Your task to perform on an android device: Open Reddit.com Image 0: 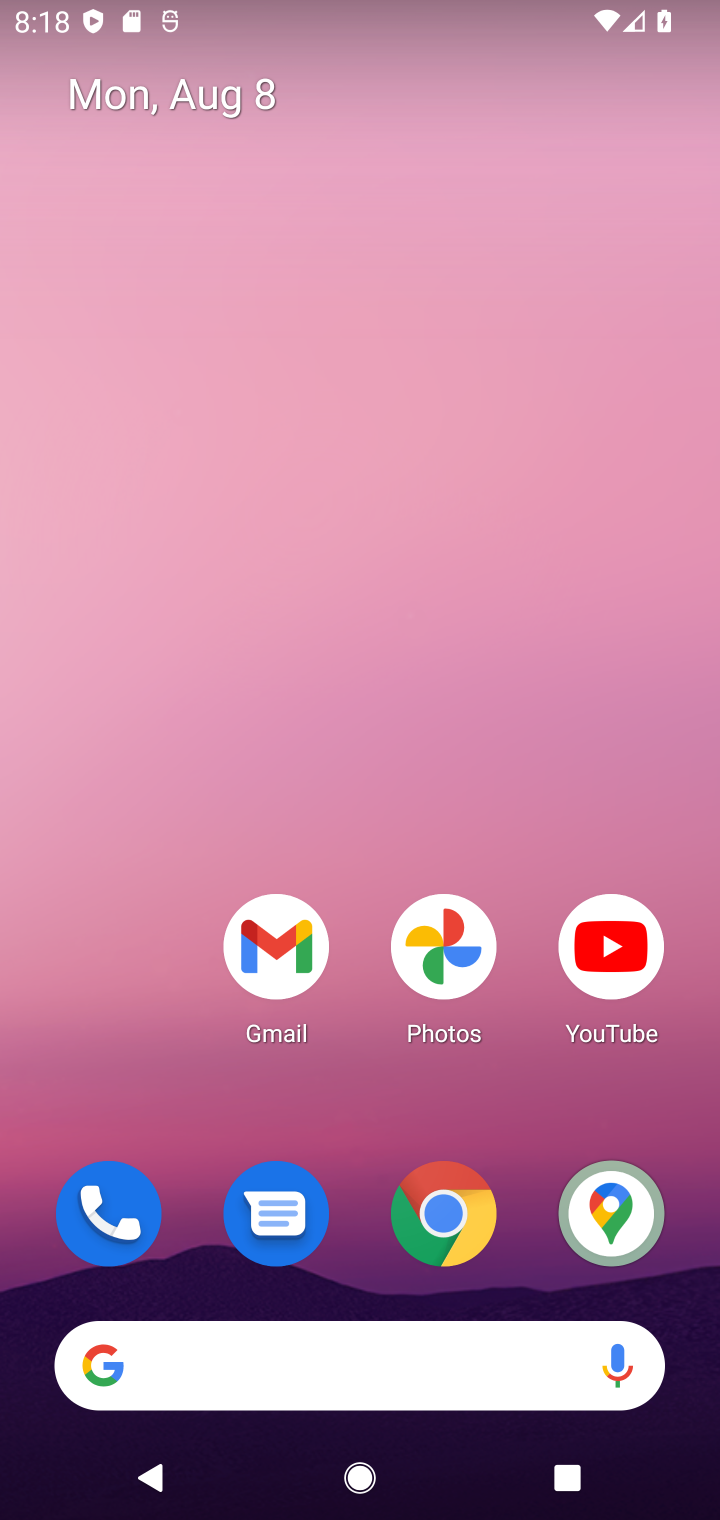
Step 0: click (431, 1190)
Your task to perform on an android device: Open Reddit.com Image 1: 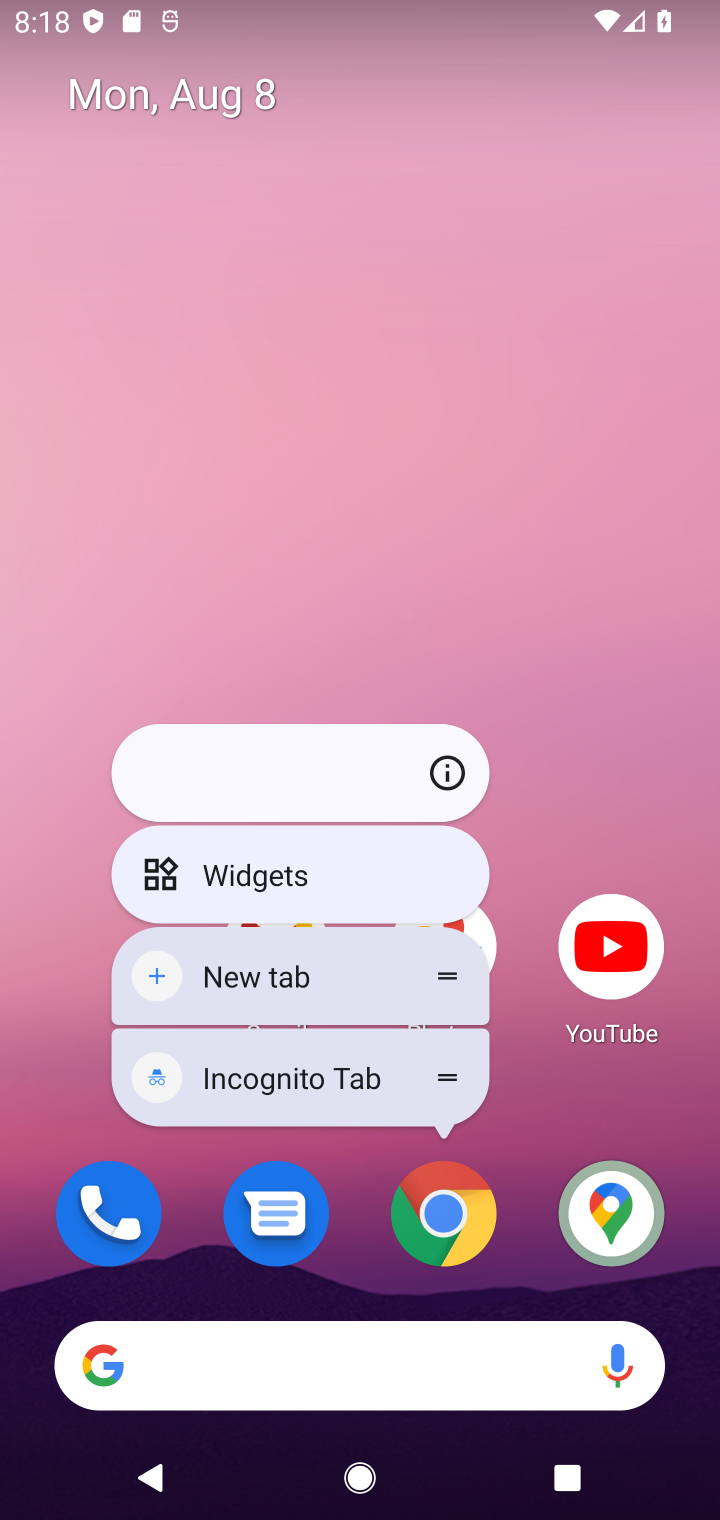
Step 1: click (453, 1221)
Your task to perform on an android device: Open Reddit.com Image 2: 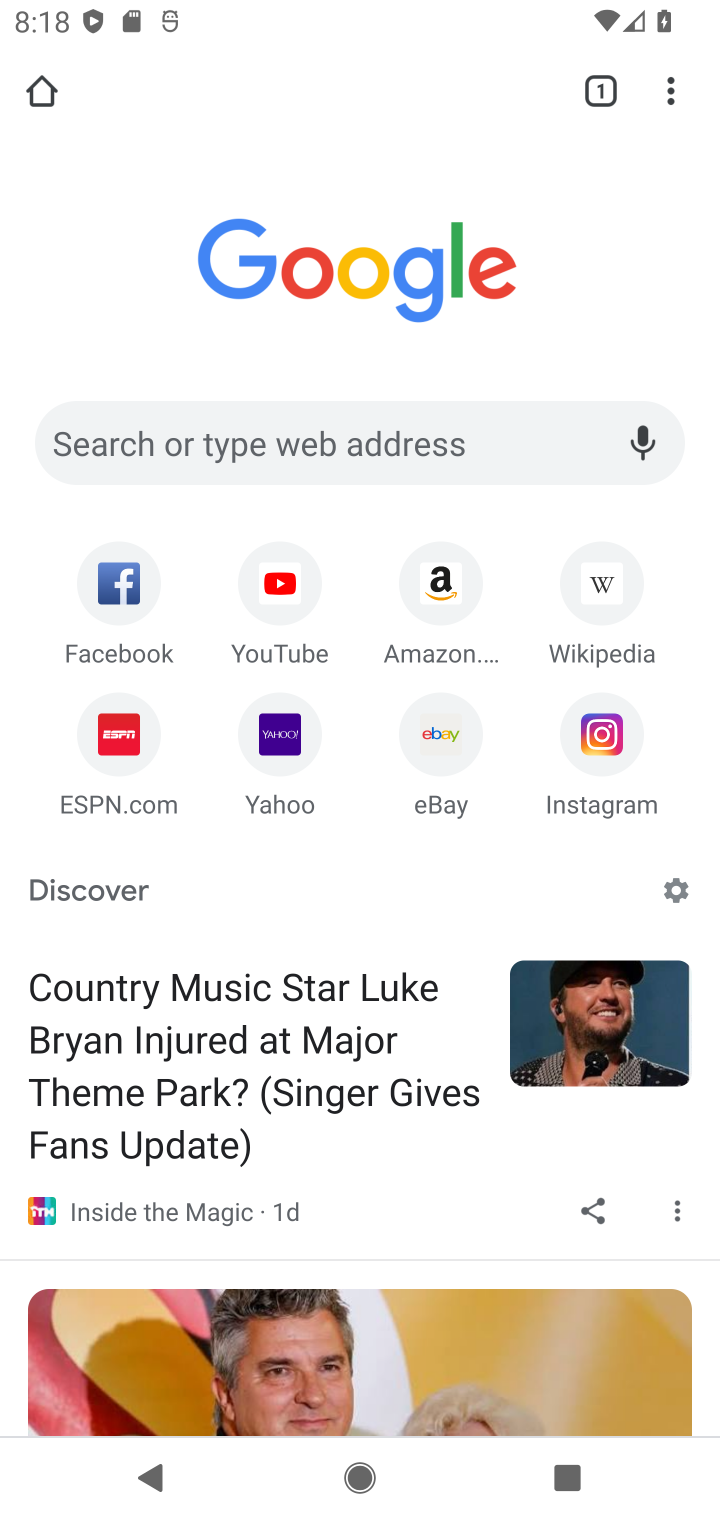
Step 2: click (323, 440)
Your task to perform on an android device: Open Reddit.com Image 3: 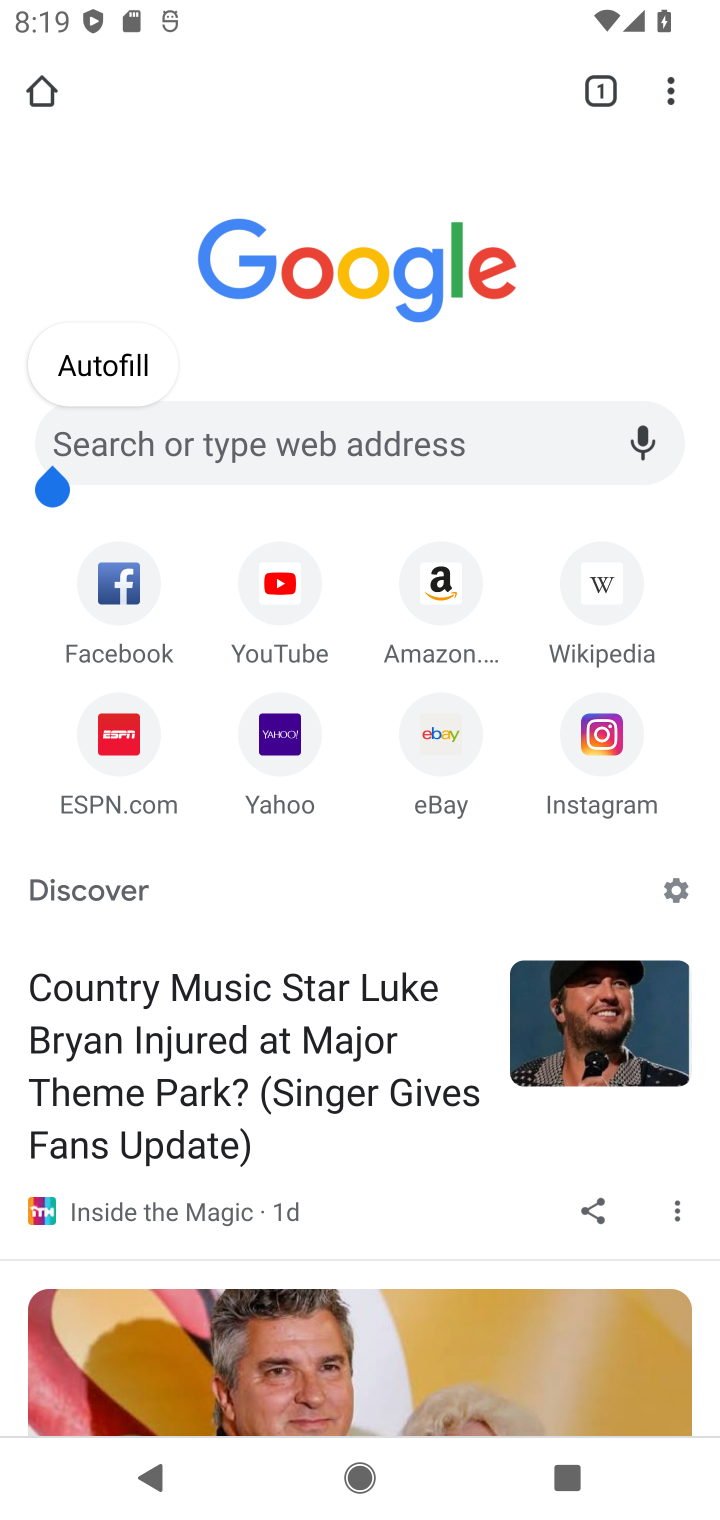
Step 3: type "Reddit.com"
Your task to perform on an android device: Open Reddit.com Image 4: 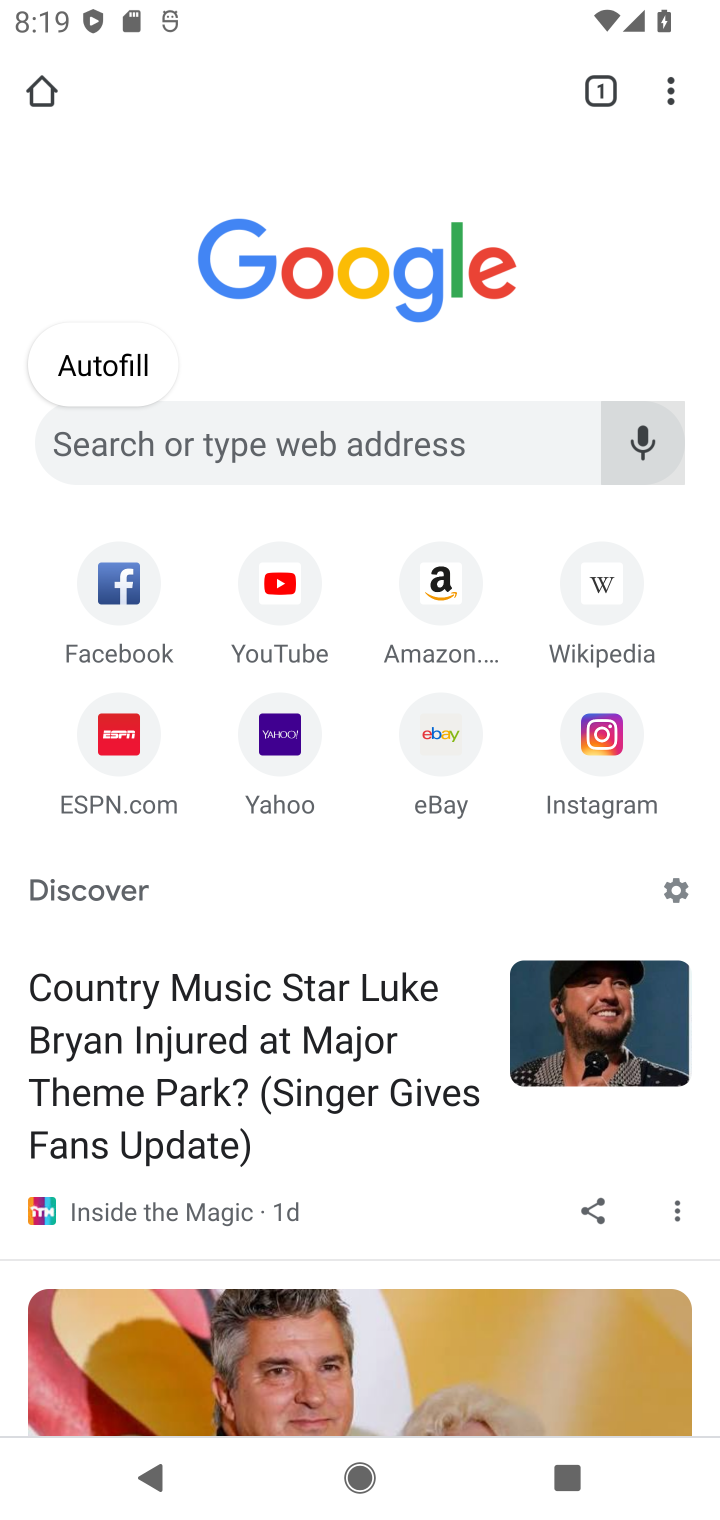
Step 4: type ""
Your task to perform on an android device: Open Reddit.com Image 5: 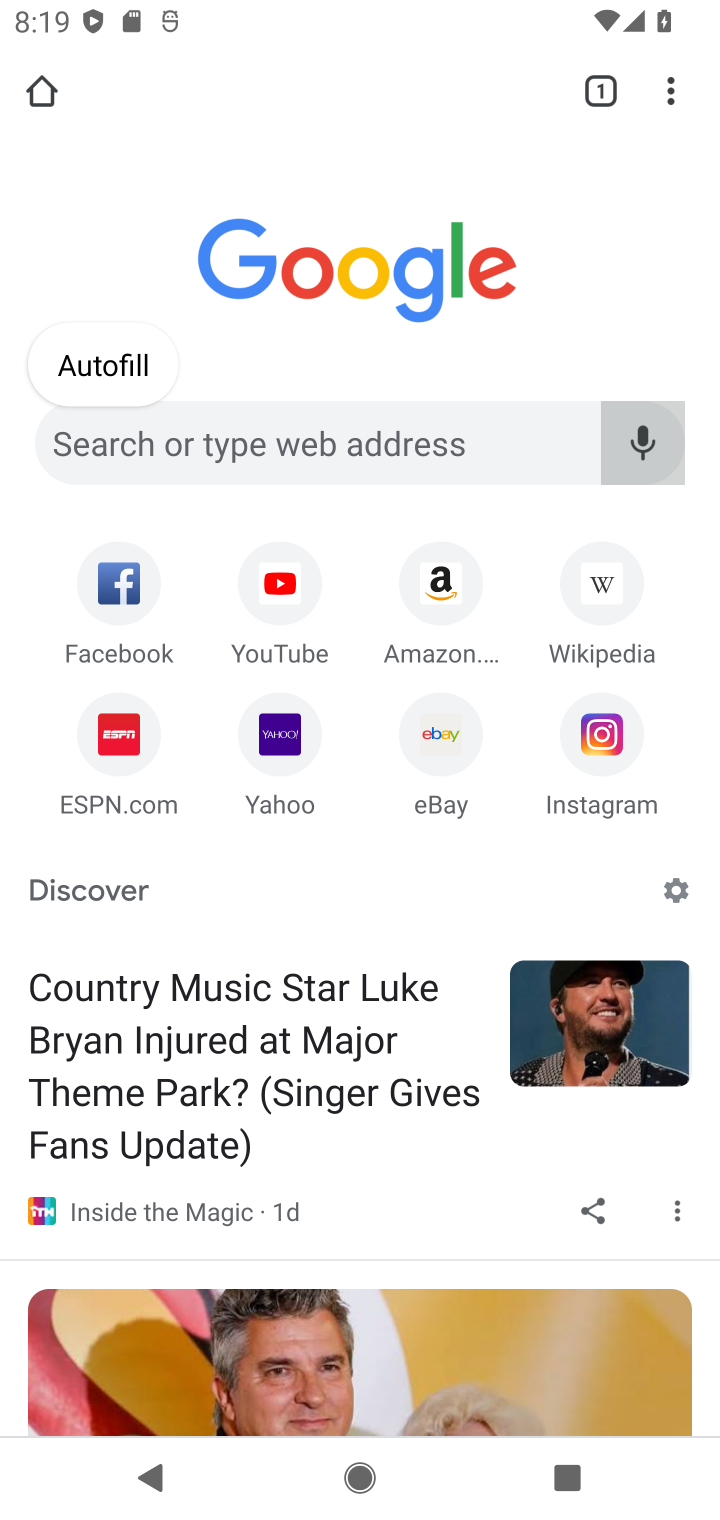
Step 5: click (278, 453)
Your task to perform on an android device: Open Reddit.com Image 6: 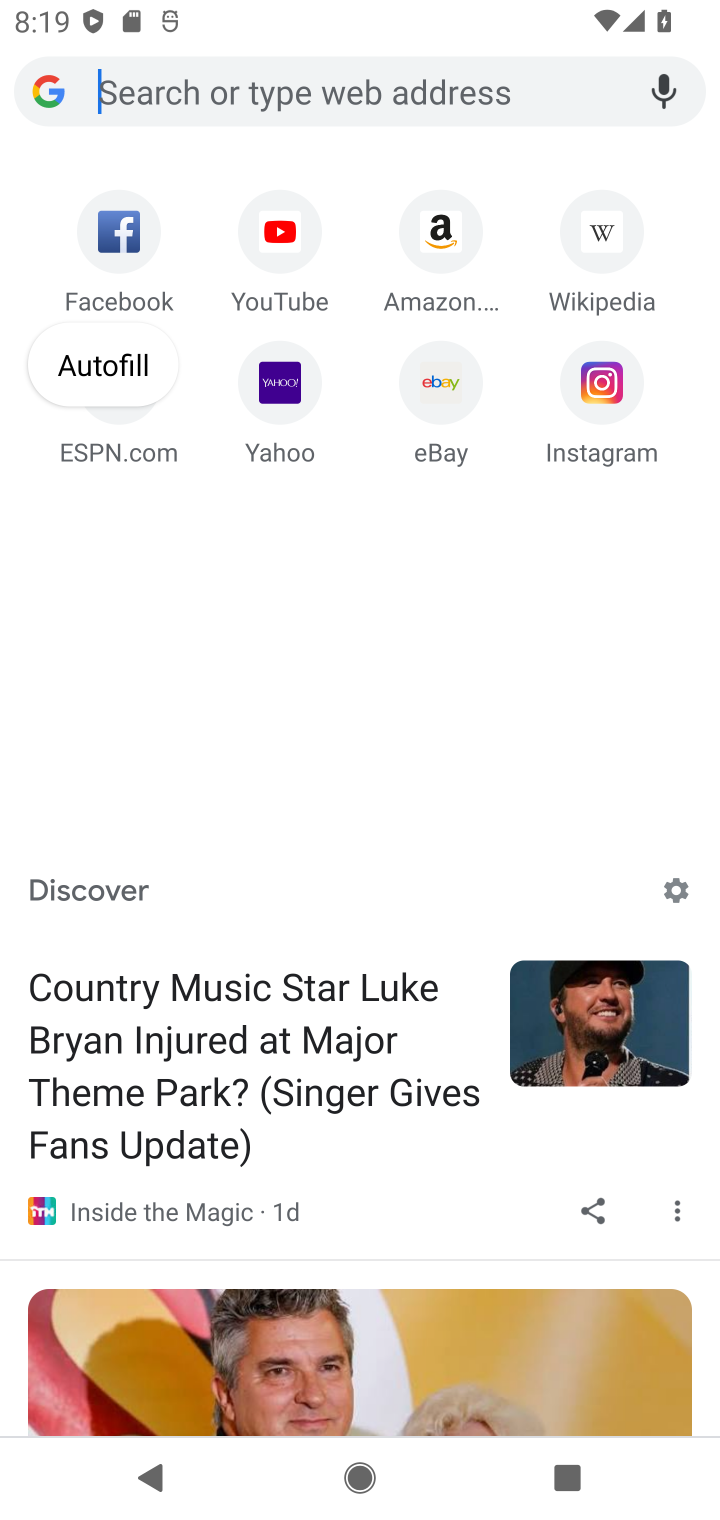
Step 6: click (278, 450)
Your task to perform on an android device: Open Reddit.com Image 7: 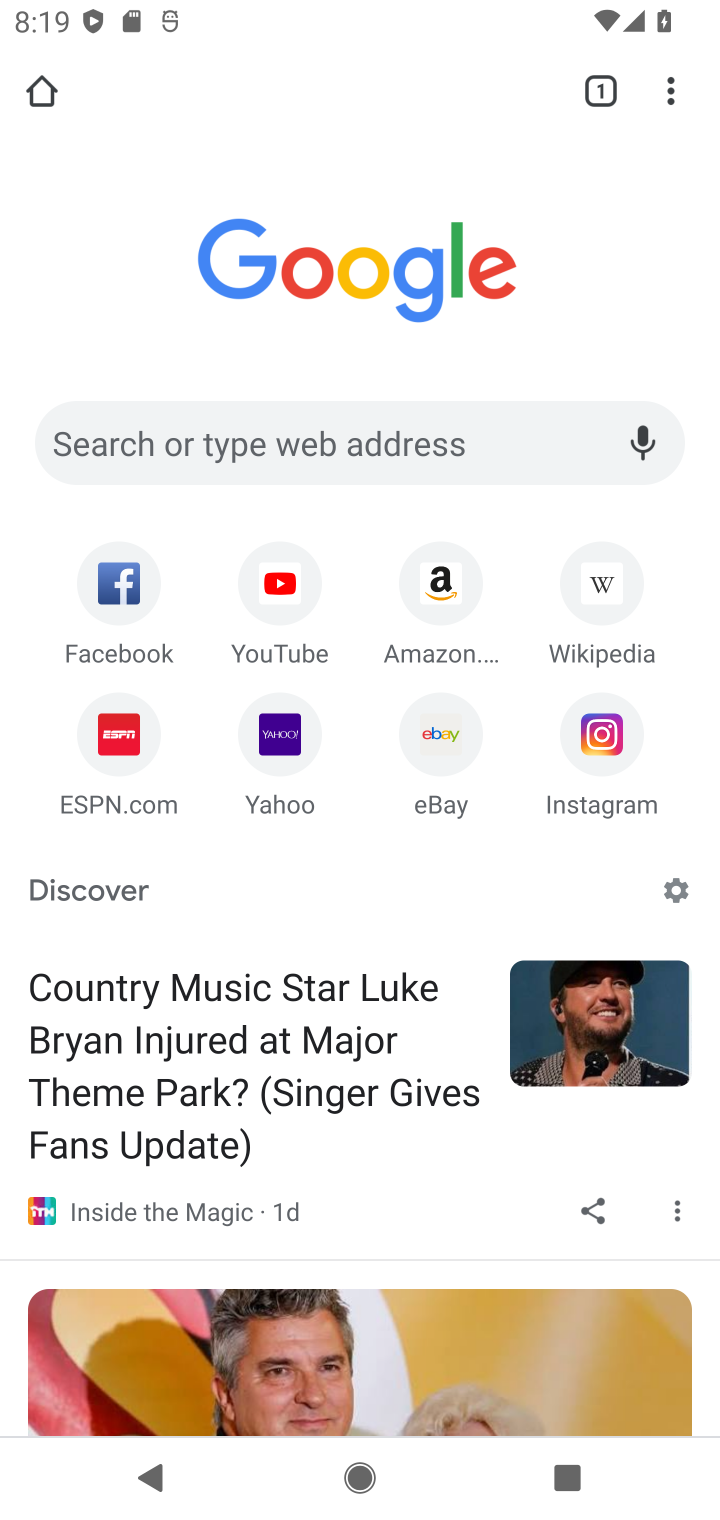
Step 7: click (242, 442)
Your task to perform on an android device: Open Reddit.com Image 8: 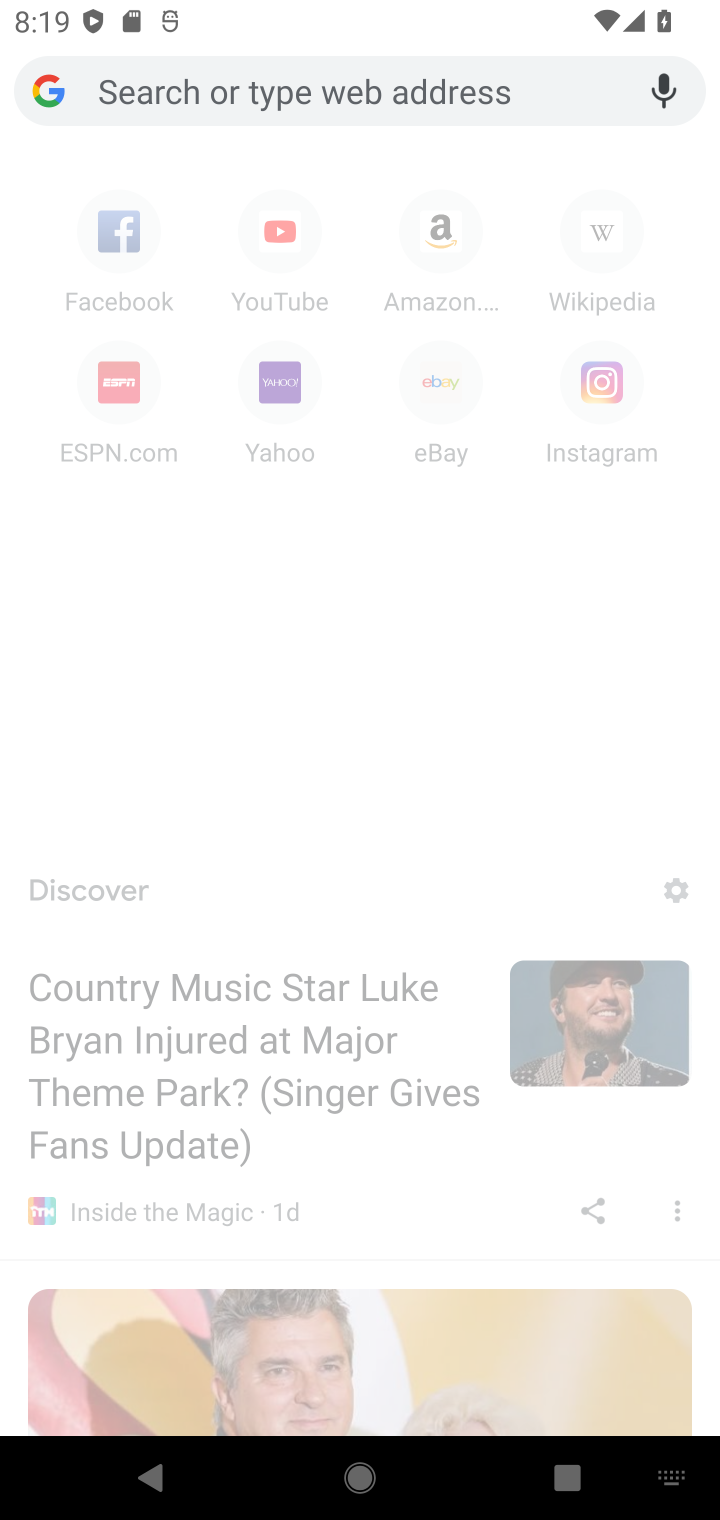
Step 8: type "Reddit.com"
Your task to perform on an android device: Open Reddit.com Image 9: 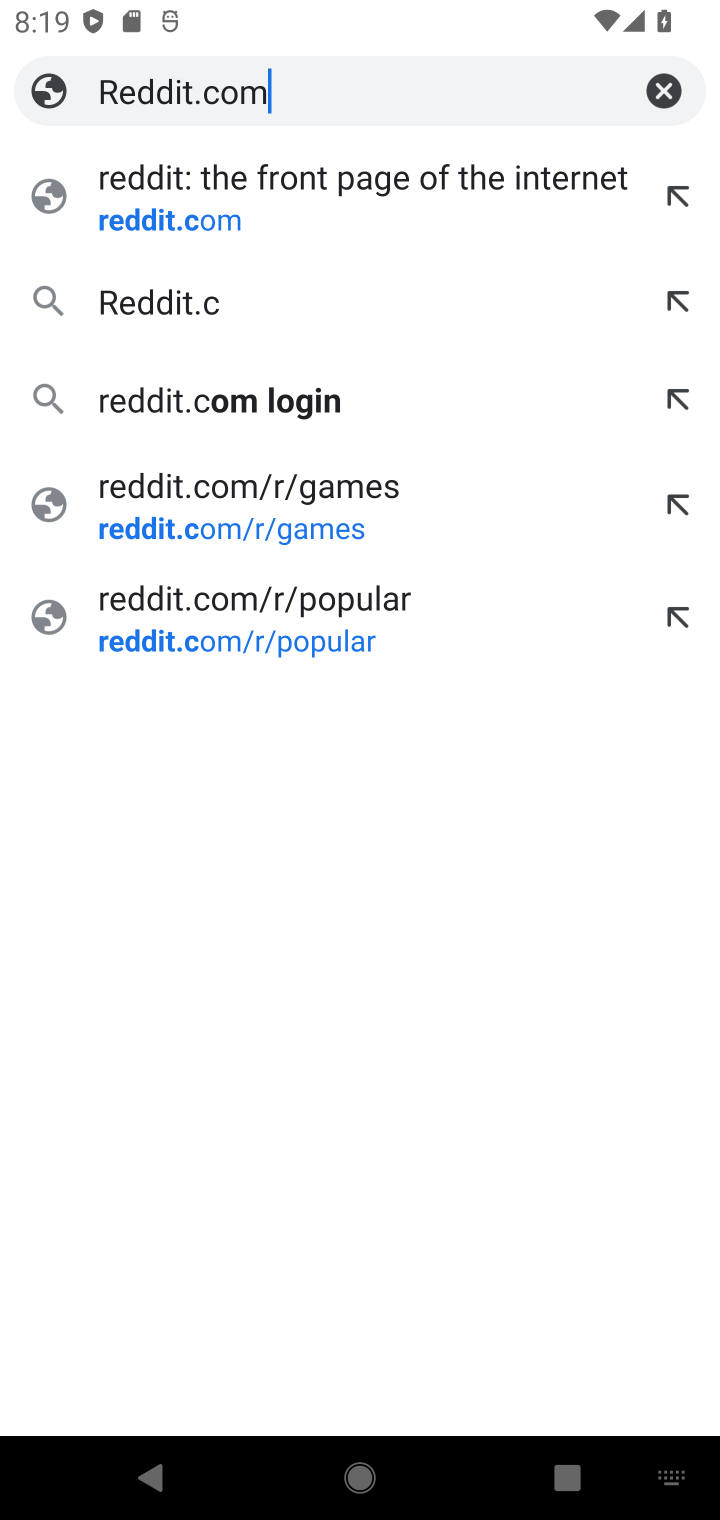
Step 9: type ""
Your task to perform on an android device: Open Reddit.com Image 10: 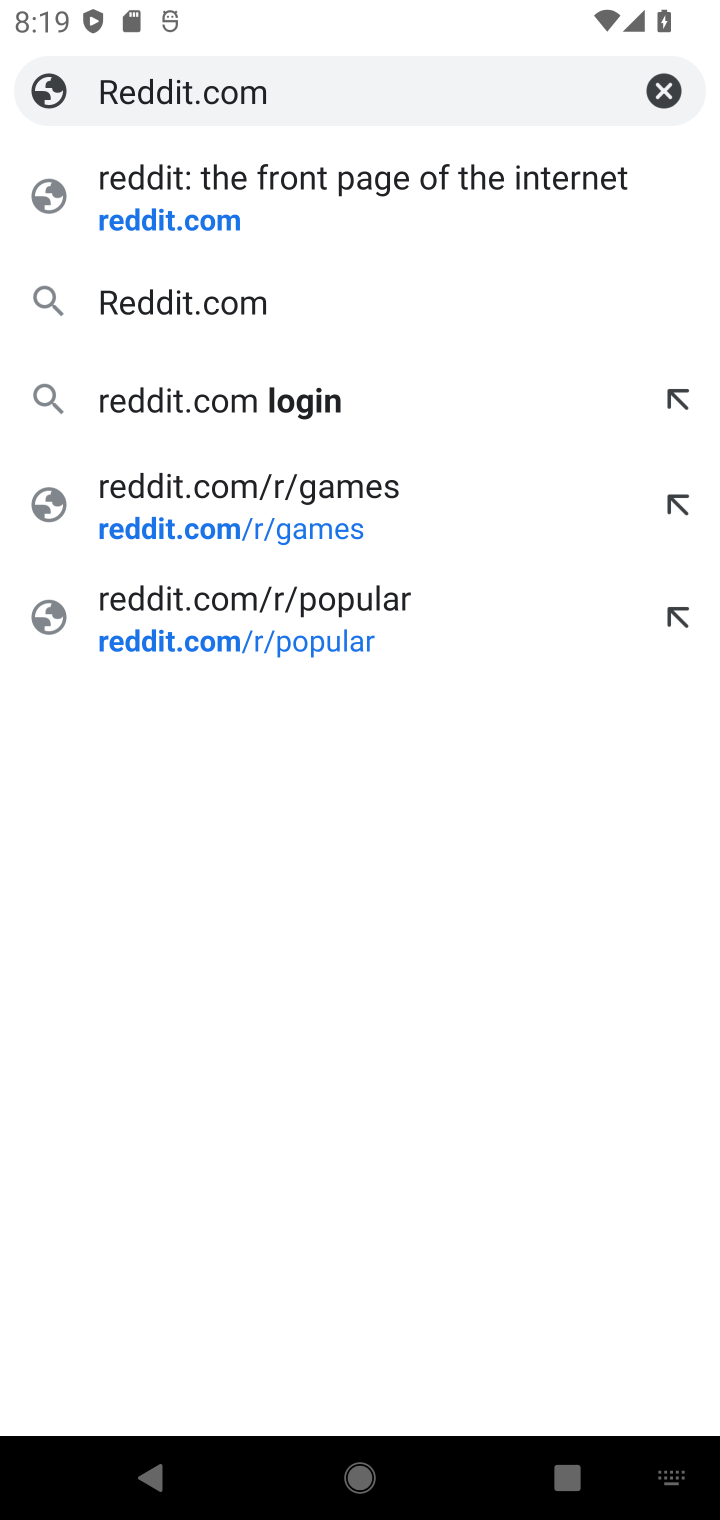
Step 10: click (206, 173)
Your task to perform on an android device: Open Reddit.com Image 11: 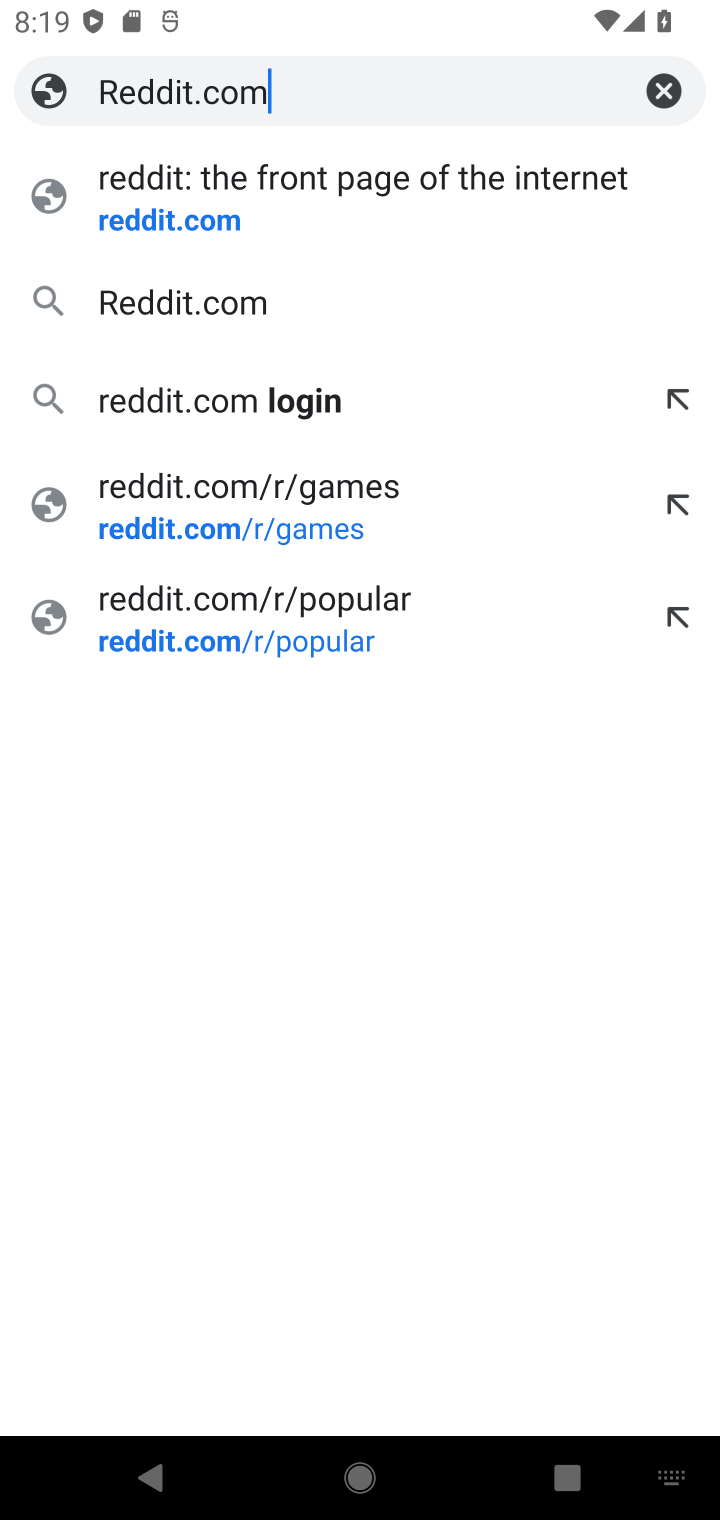
Step 11: click (208, 169)
Your task to perform on an android device: Open Reddit.com Image 12: 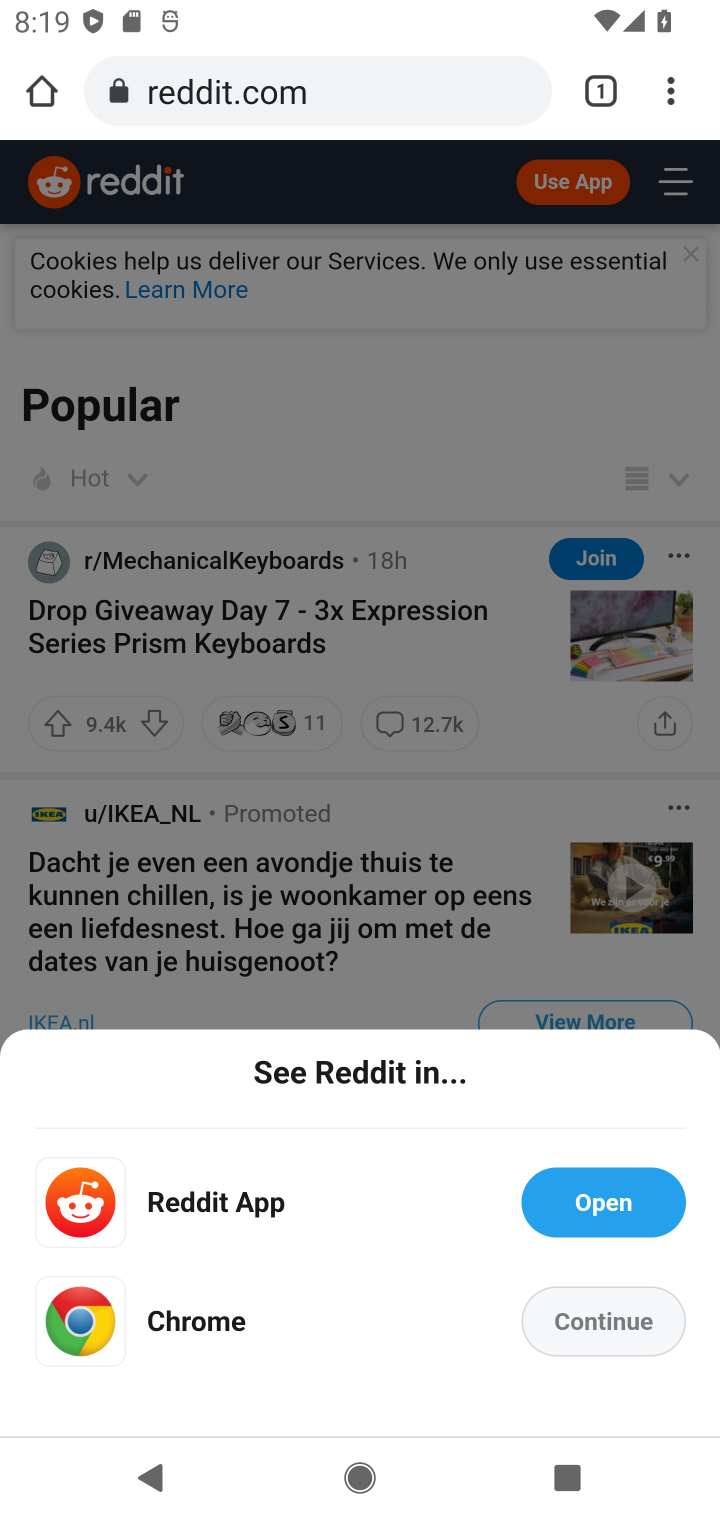
Step 12: task complete